Your task to perform on an android device: show emergency info Image 0: 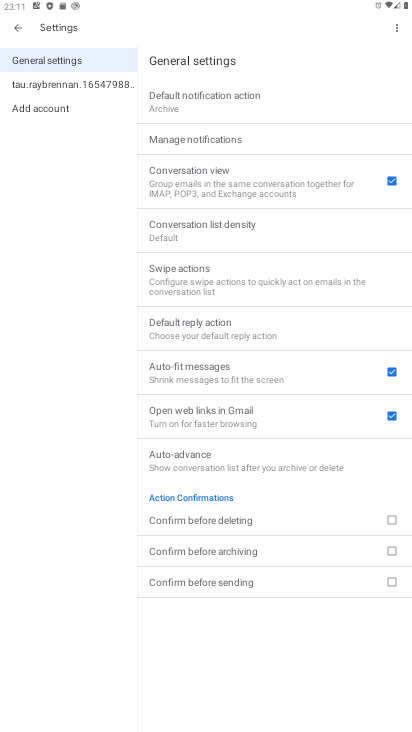
Step 0: press home button
Your task to perform on an android device: show emergency info Image 1: 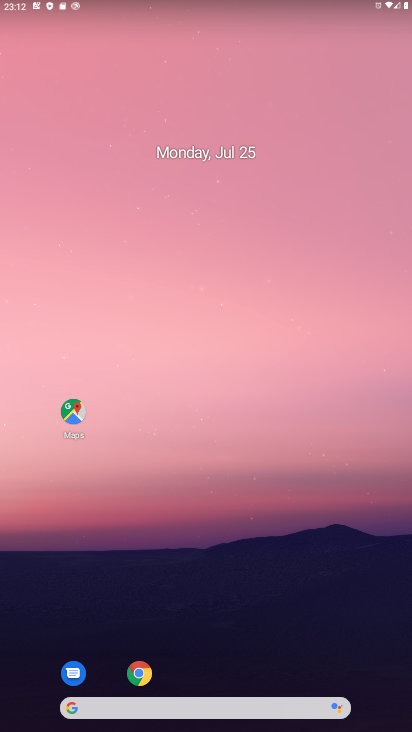
Step 1: drag from (218, 646) to (258, 185)
Your task to perform on an android device: show emergency info Image 2: 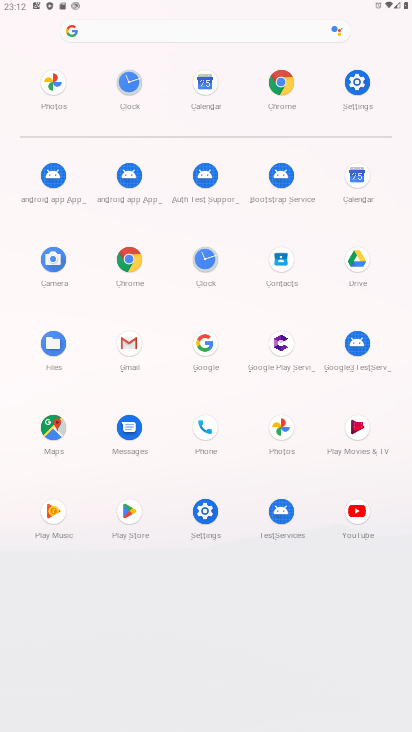
Step 2: click (199, 505)
Your task to perform on an android device: show emergency info Image 3: 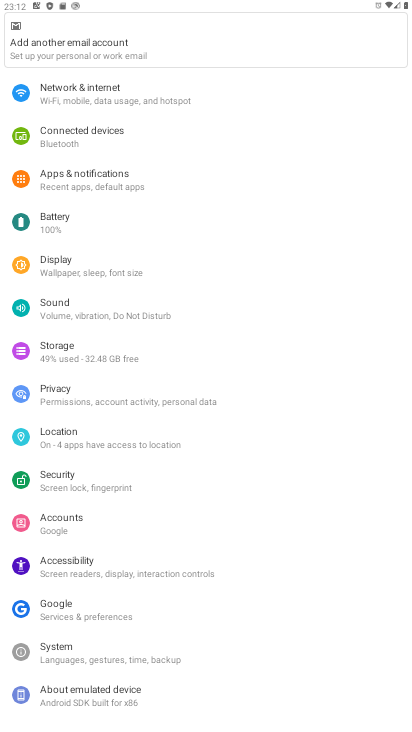
Step 3: click (171, 700)
Your task to perform on an android device: show emergency info Image 4: 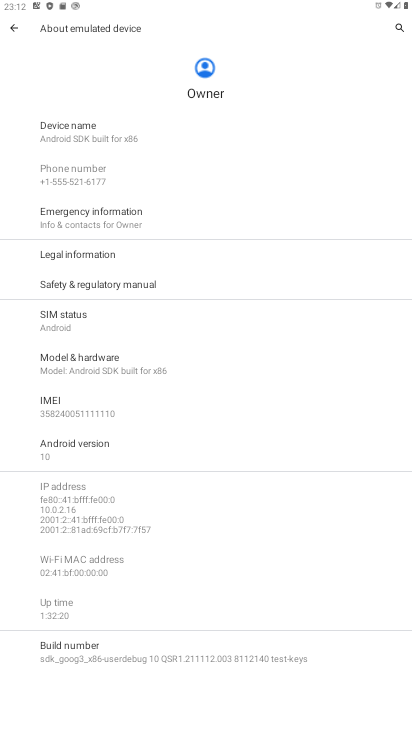
Step 4: click (129, 220)
Your task to perform on an android device: show emergency info Image 5: 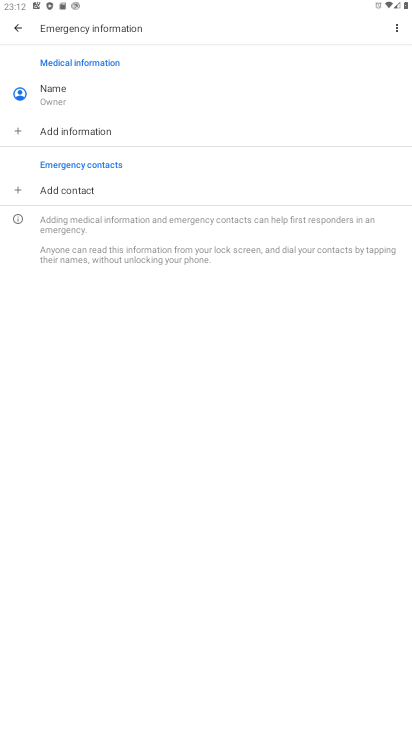
Step 5: task complete